Your task to perform on an android device: When is my next meeting? Image 0: 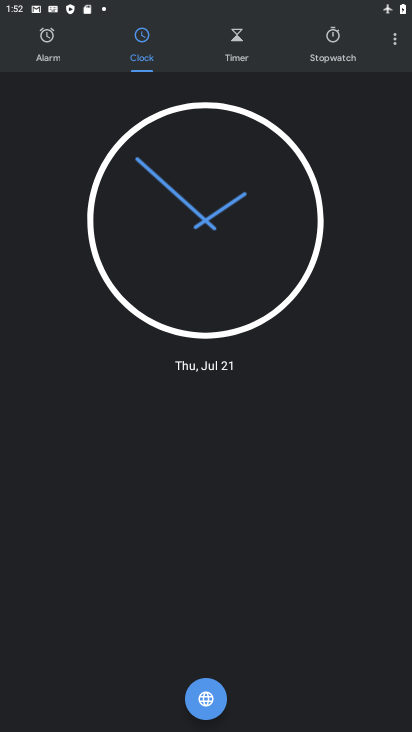
Step 0: press home button
Your task to perform on an android device: When is my next meeting? Image 1: 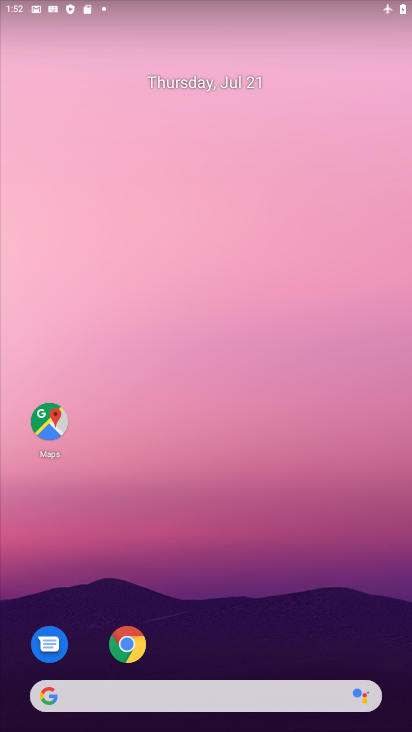
Step 1: drag from (241, 639) to (182, 191)
Your task to perform on an android device: When is my next meeting? Image 2: 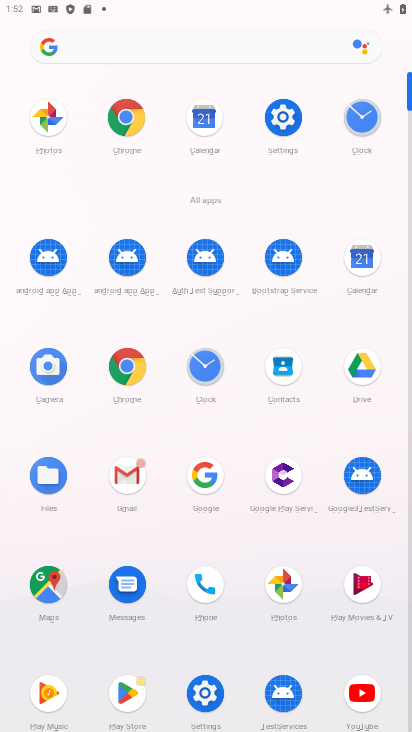
Step 2: click (354, 267)
Your task to perform on an android device: When is my next meeting? Image 3: 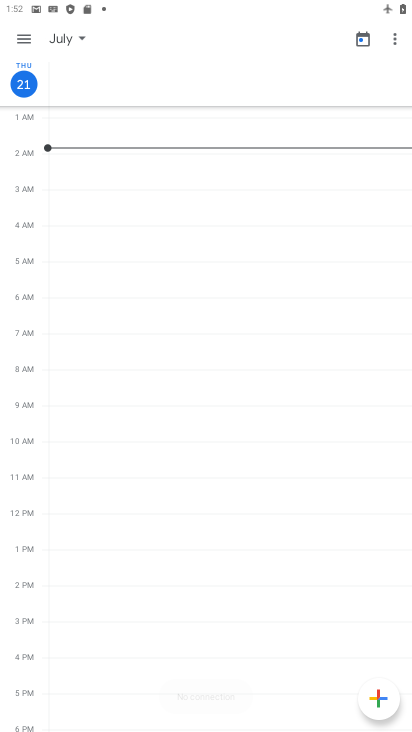
Step 3: click (32, 44)
Your task to perform on an android device: When is my next meeting? Image 4: 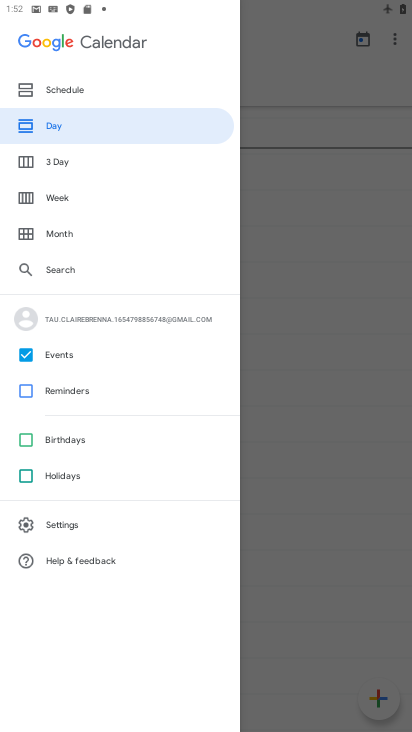
Step 4: click (59, 89)
Your task to perform on an android device: When is my next meeting? Image 5: 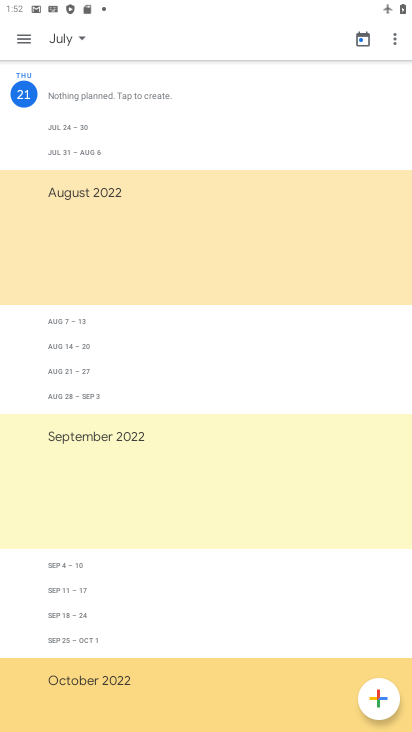
Step 5: task complete